Your task to perform on an android device: Go to Google maps Image 0: 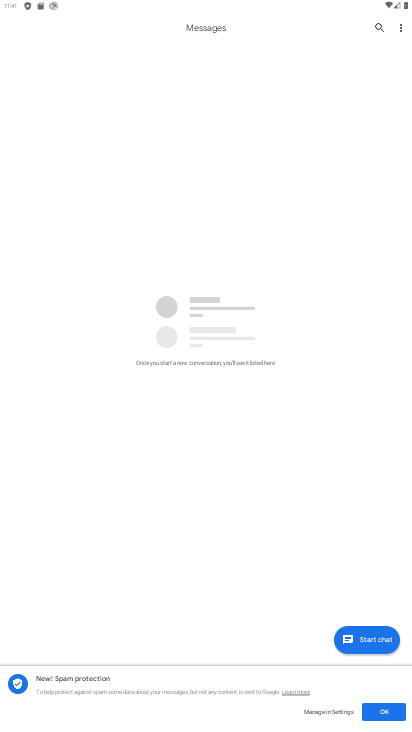
Step 0: press home button
Your task to perform on an android device: Go to Google maps Image 1: 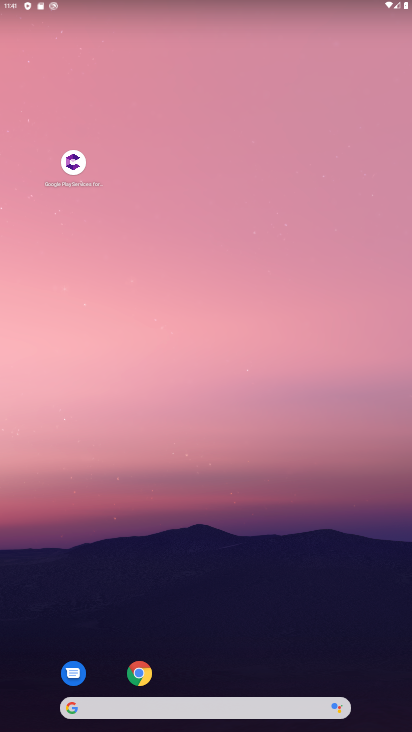
Step 1: drag from (147, 600) to (116, 380)
Your task to perform on an android device: Go to Google maps Image 2: 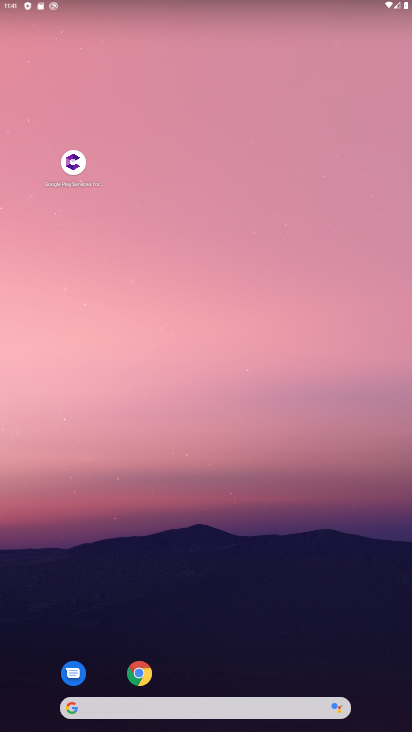
Step 2: drag from (218, 707) to (172, 223)
Your task to perform on an android device: Go to Google maps Image 3: 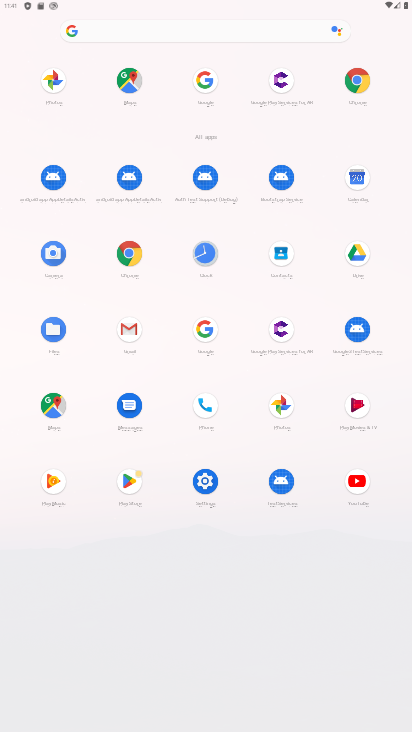
Step 3: click (48, 407)
Your task to perform on an android device: Go to Google maps Image 4: 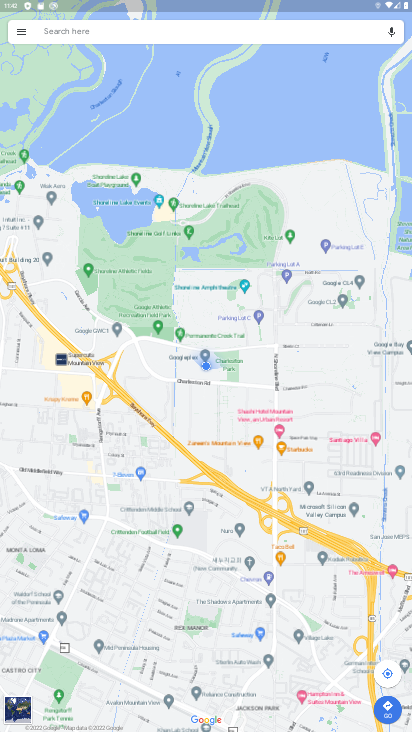
Step 4: task complete